Your task to perform on an android device: Show me popular videos on Youtube Image 0: 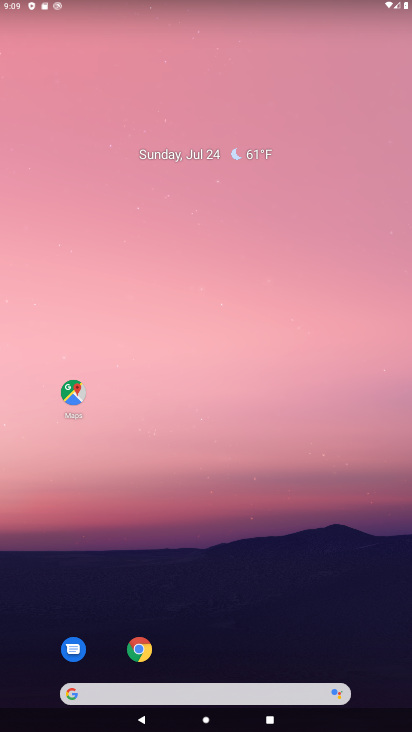
Step 0: drag from (350, 647) to (289, 107)
Your task to perform on an android device: Show me popular videos on Youtube Image 1: 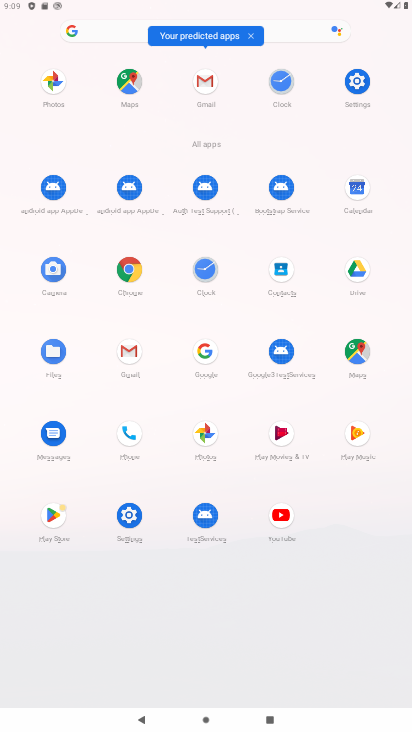
Step 1: click (280, 510)
Your task to perform on an android device: Show me popular videos on Youtube Image 2: 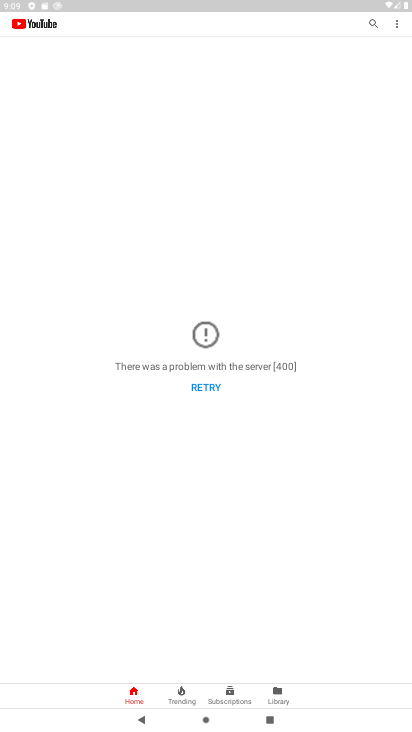
Step 2: task complete